Your task to perform on an android device: Check the news Image 0: 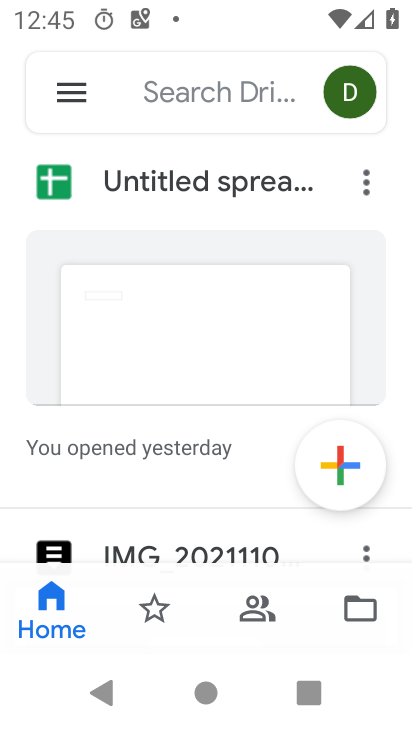
Step 0: press home button
Your task to perform on an android device: Check the news Image 1: 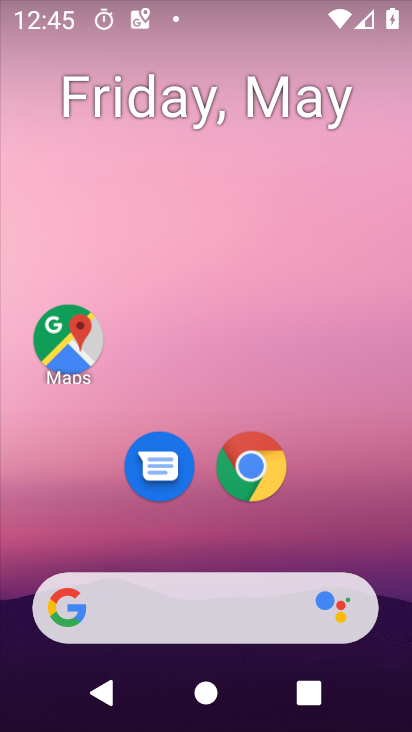
Step 1: drag from (400, 642) to (281, 107)
Your task to perform on an android device: Check the news Image 2: 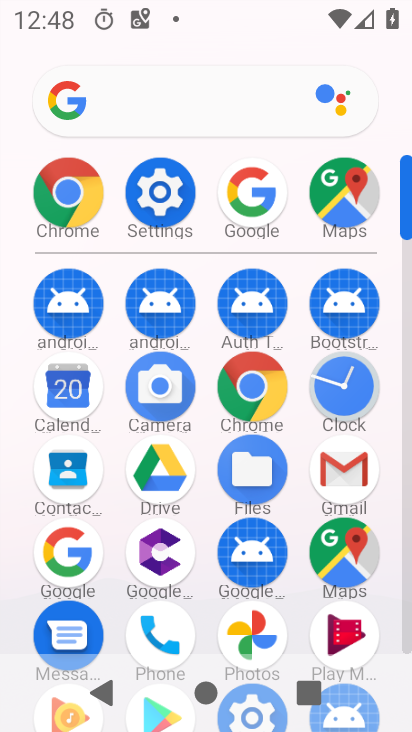
Step 2: click (249, 198)
Your task to perform on an android device: Check the news Image 3: 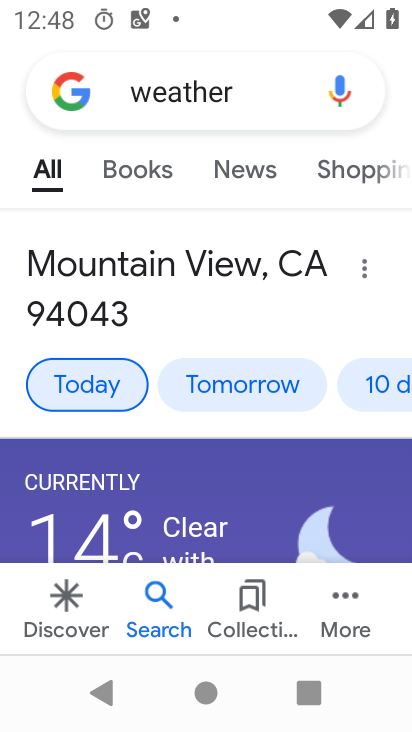
Step 3: press back button
Your task to perform on an android device: Check the news Image 4: 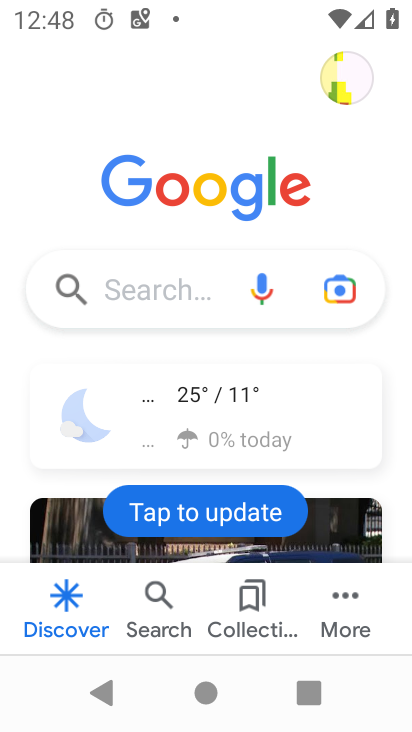
Step 4: click (124, 305)
Your task to perform on an android device: Check the news Image 5: 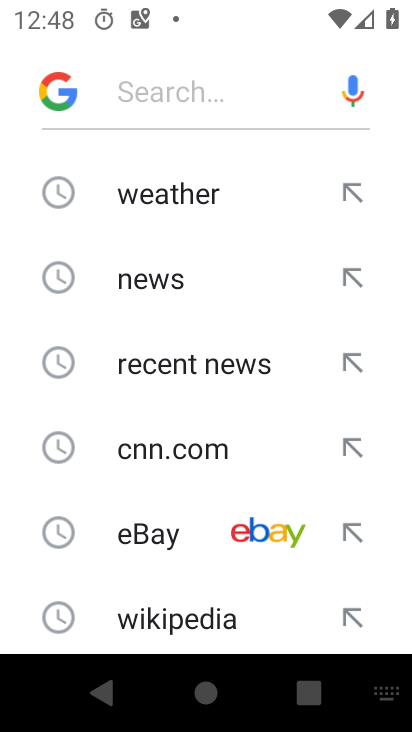
Step 5: click (139, 295)
Your task to perform on an android device: Check the news Image 6: 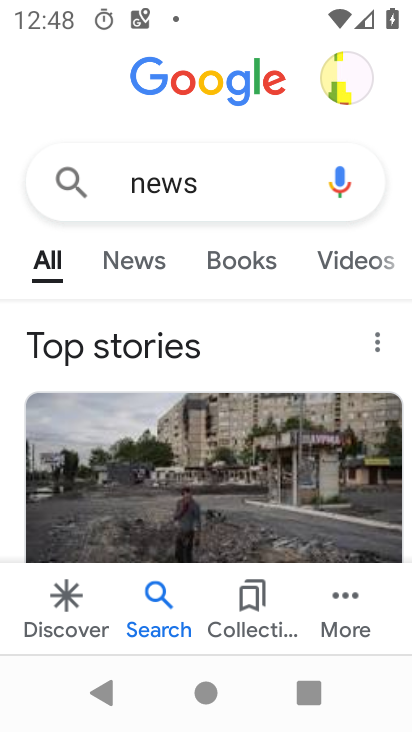
Step 6: task complete